Your task to perform on an android device: toggle location history Image 0: 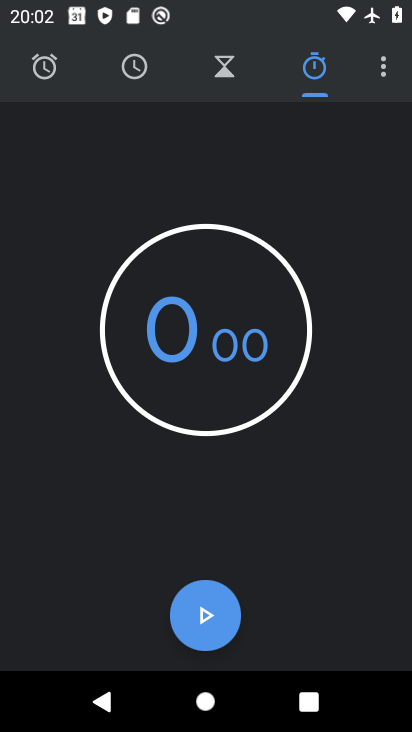
Step 0: press home button
Your task to perform on an android device: toggle location history Image 1: 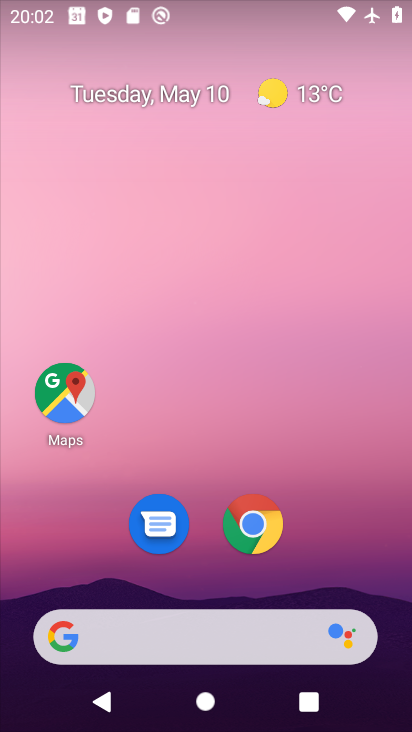
Step 1: drag from (334, 498) to (336, 64)
Your task to perform on an android device: toggle location history Image 2: 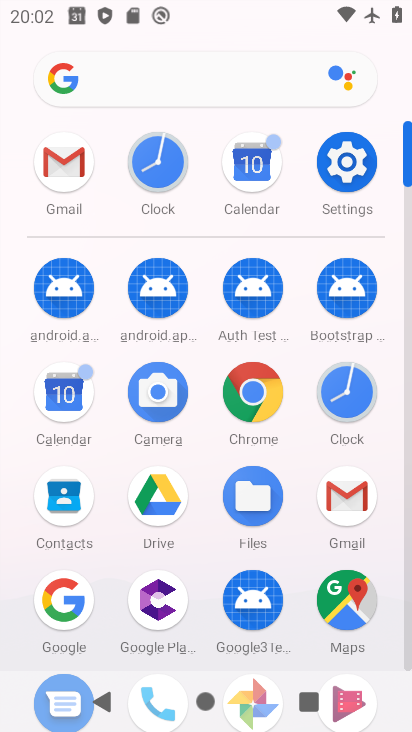
Step 2: click (352, 176)
Your task to perform on an android device: toggle location history Image 3: 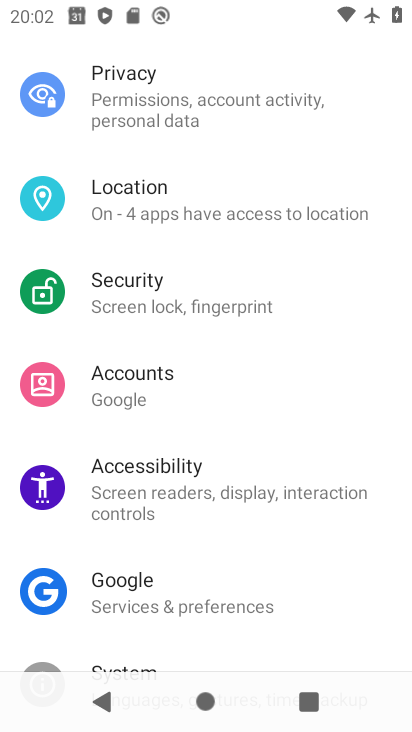
Step 3: click (285, 194)
Your task to perform on an android device: toggle location history Image 4: 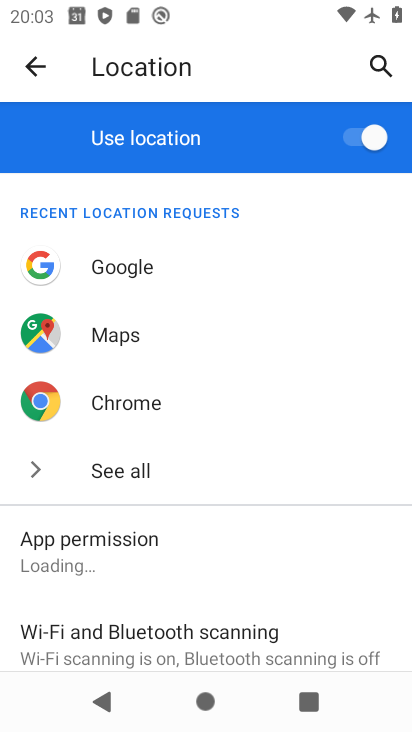
Step 4: drag from (218, 565) to (189, 260)
Your task to perform on an android device: toggle location history Image 5: 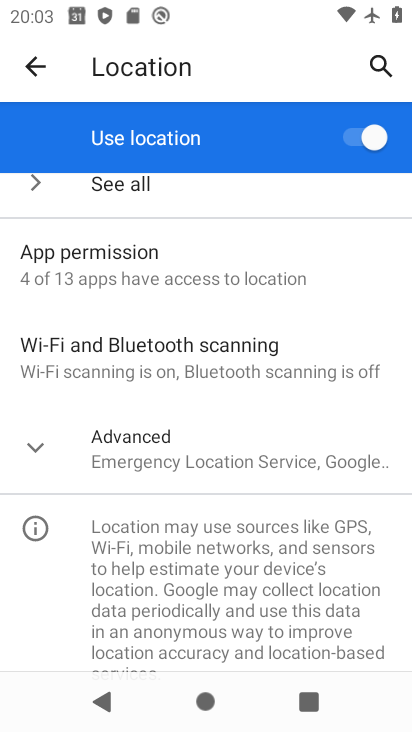
Step 5: click (40, 440)
Your task to perform on an android device: toggle location history Image 6: 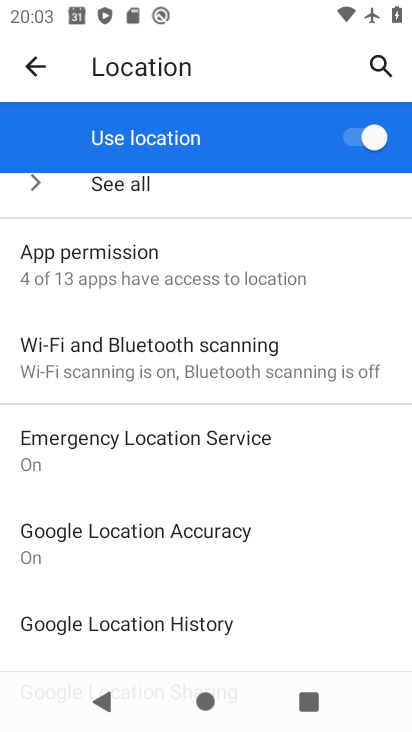
Step 6: drag from (265, 570) to (268, 416)
Your task to perform on an android device: toggle location history Image 7: 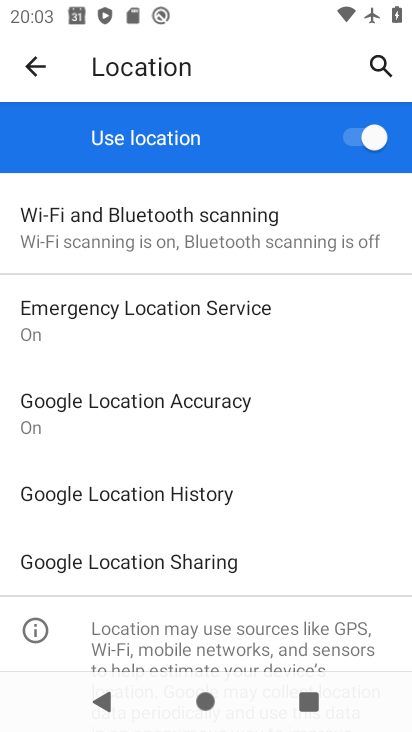
Step 7: click (232, 492)
Your task to perform on an android device: toggle location history Image 8: 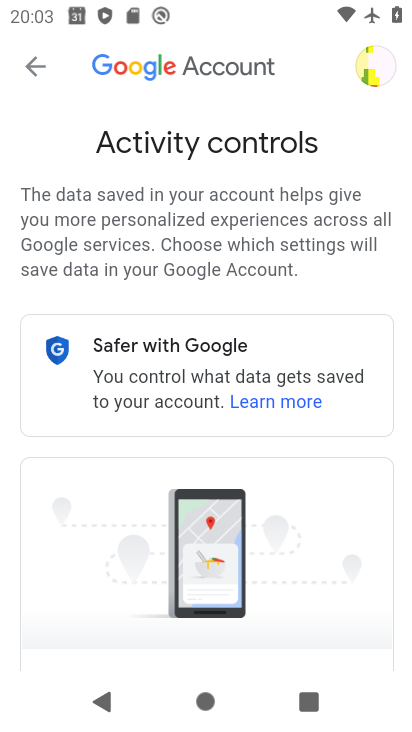
Step 8: drag from (292, 536) to (268, 182)
Your task to perform on an android device: toggle location history Image 9: 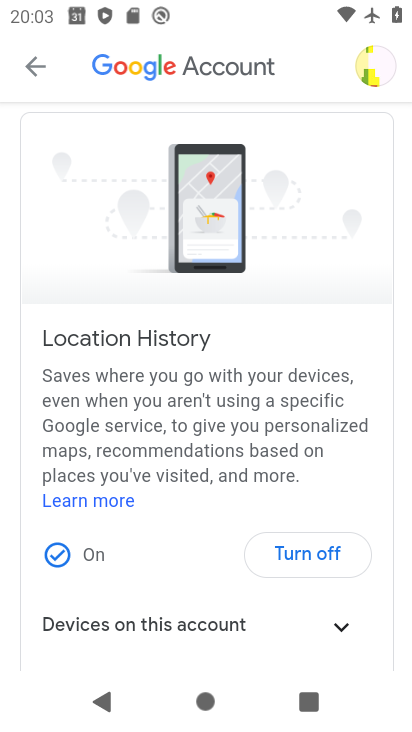
Step 9: click (333, 549)
Your task to perform on an android device: toggle location history Image 10: 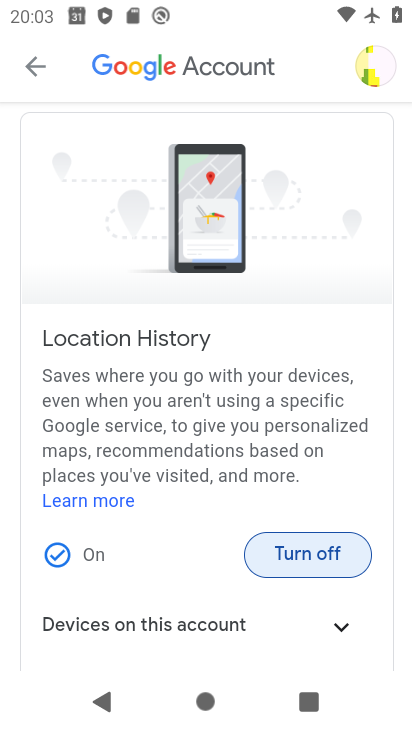
Step 10: click (317, 550)
Your task to perform on an android device: toggle location history Image 11: 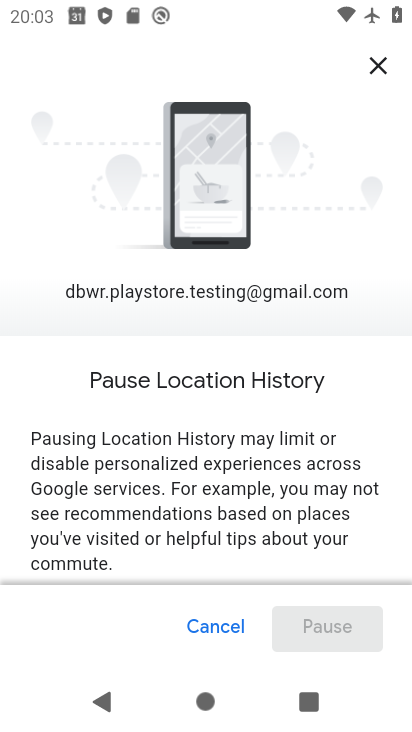
Step 11: drag from (266, 531) to (240, 115)
Your task to perform on an android device: toggle location history Image 12: 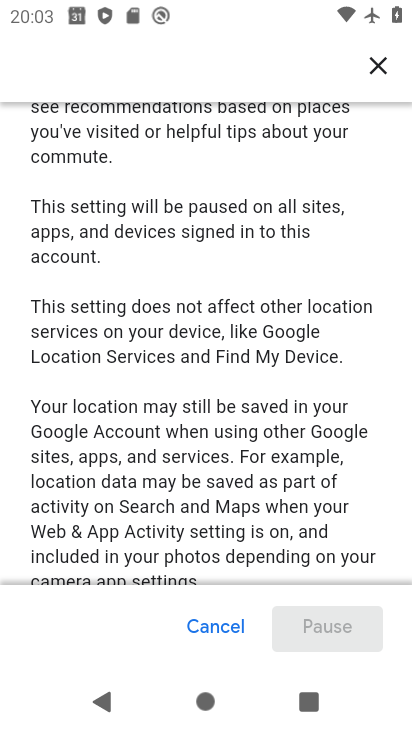
Step 12: drag from (236, 481) to (267, 134)
Your task to perform on an android device: toggle location history Image 13: 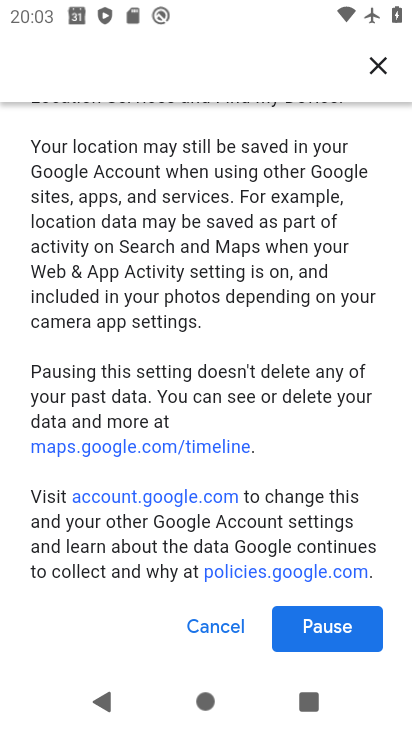
Step 13: click (322, 619)
Your task to perform on an android device: toggle location history Image 14: 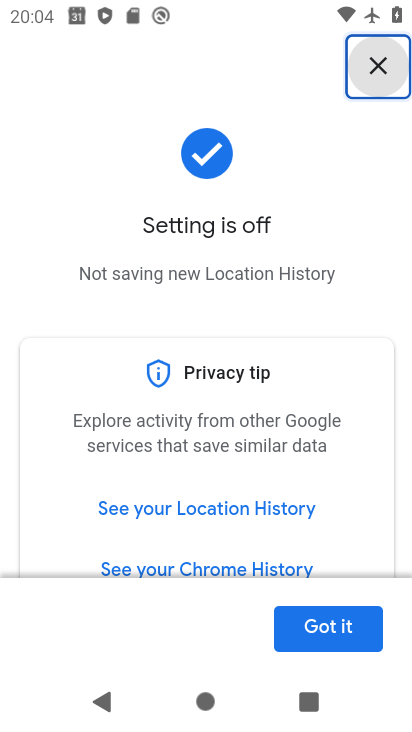
Step 14: click (322, 619)
Your task to perform on an android device: toggle location history Image 15: 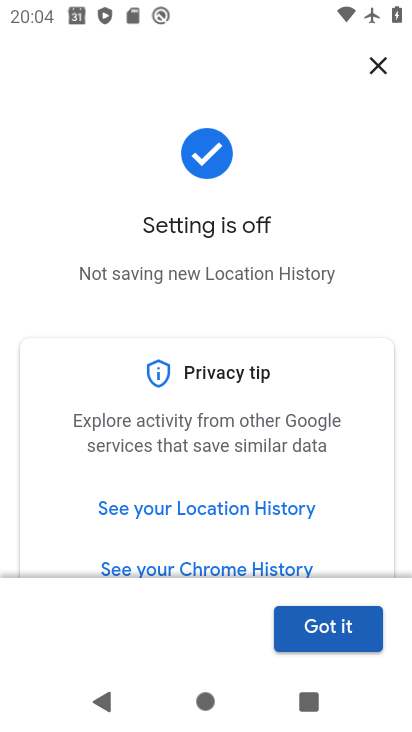
Step 15: click (330, 627)
Your task to perform on an android device: toggle location history Image 16: 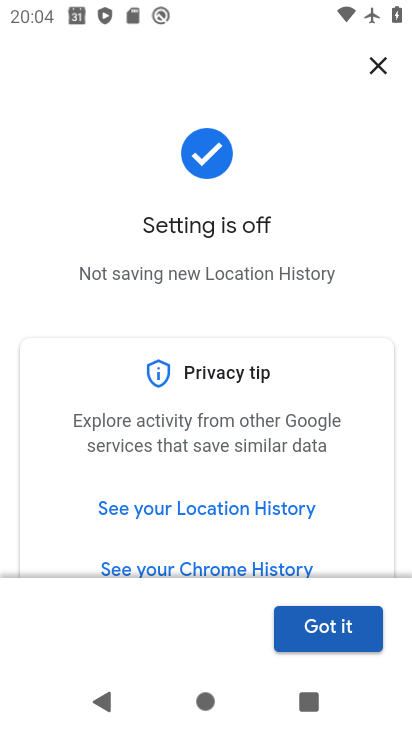
Step 16: click (330, 626)
Your task to perform on an android device: toggle location history Image 17: 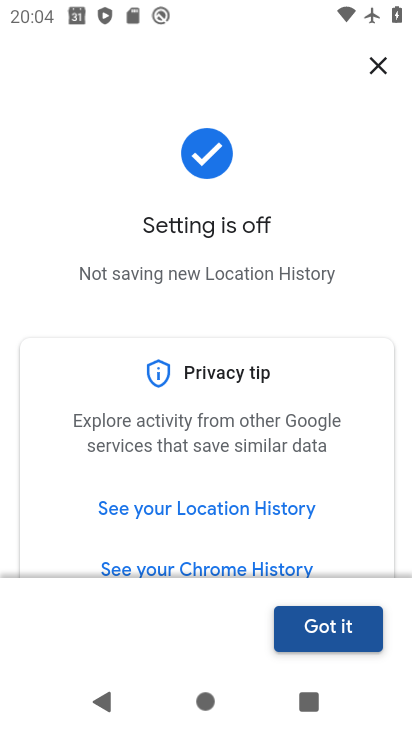
Step 17: click (330, 624)
Your task to perform on an android device: toggle location history Image 18: 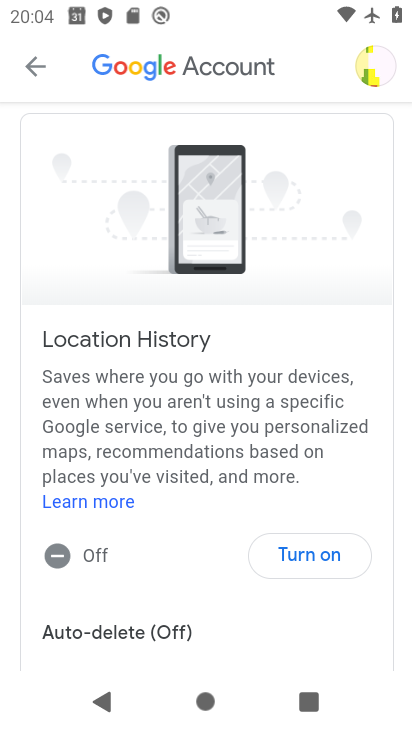
Step 18: task complete